Your task to perform on an android device: turn notification dots on Image 0: 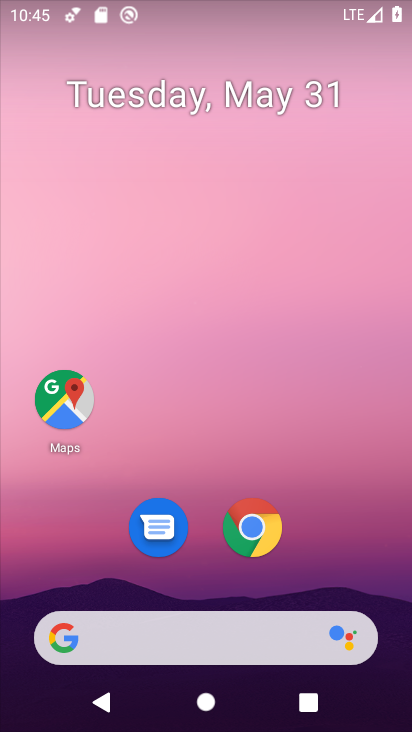
Step 0: drag from (348, 595) to (347, 19)
Your task to perform on an android device: turn notification dots on Image 1: 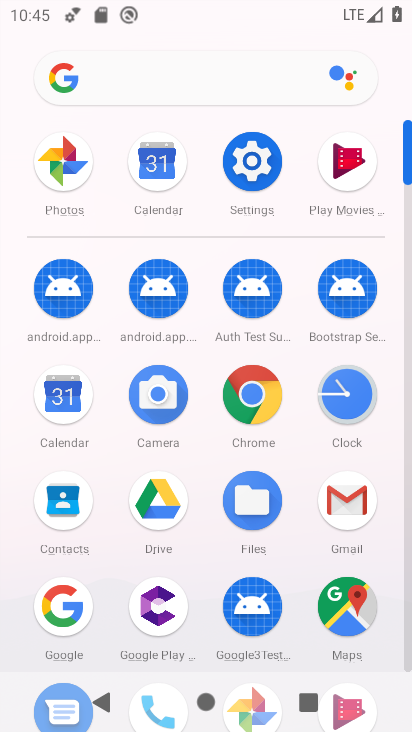
Step 1: click (248, 167)
Your task to perform on an android device: turn notification dots on Image 2: 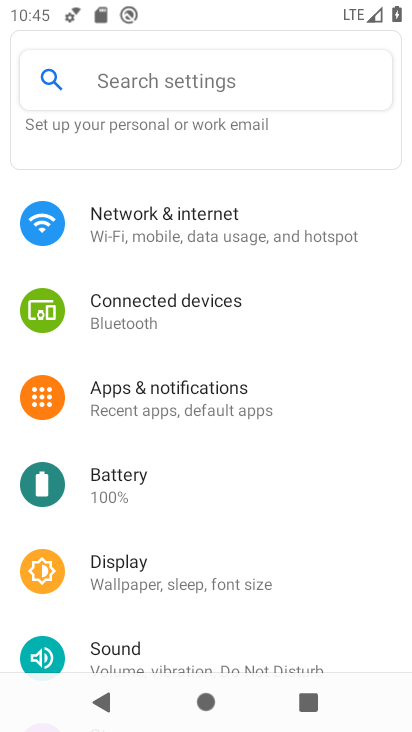
Step 2: click (153, 400)
Your task to perform on an android device: turn notification dots on Image 3: 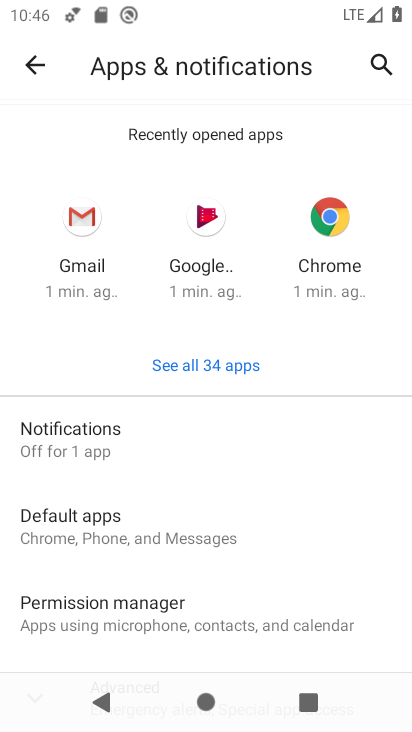
Step 3: click (63, 449)
Your task to perform on an android device: turn notification dots on Image 4: 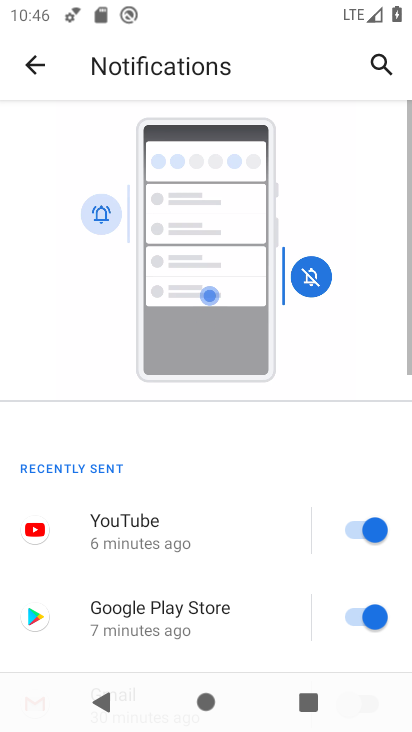
Step 4: drag from (206, 591) to (176, 134)
Your task to perform on an android device: turn notification dots on Image 5: 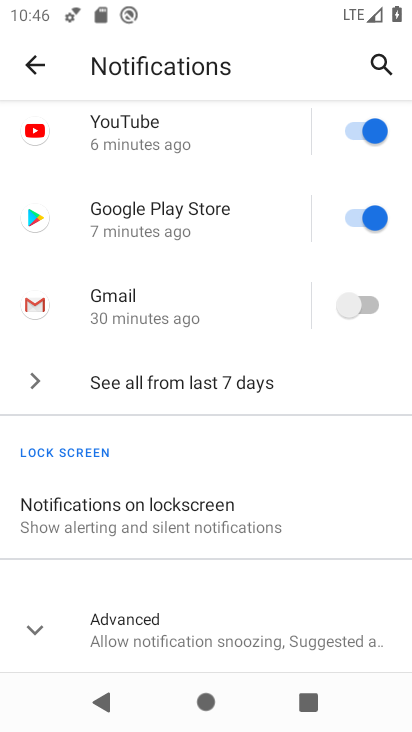
Step 5: click (33, 639)
Your task to perform on an android device: turn notification dots on Image 6: 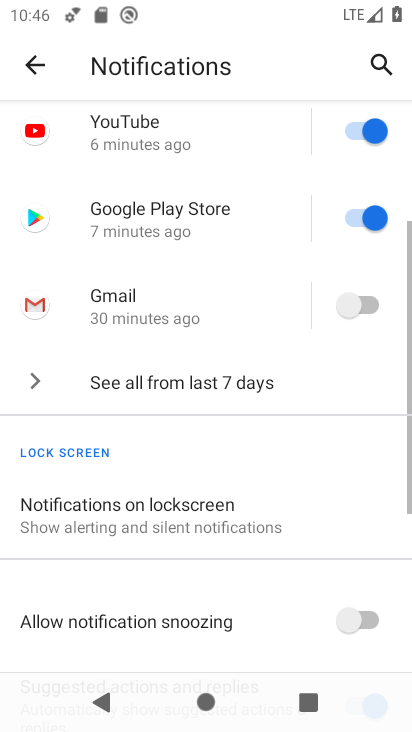
Step 6: task complete